Your task to perform on an android device: turn vacation reply on in the gmail app Image 0: 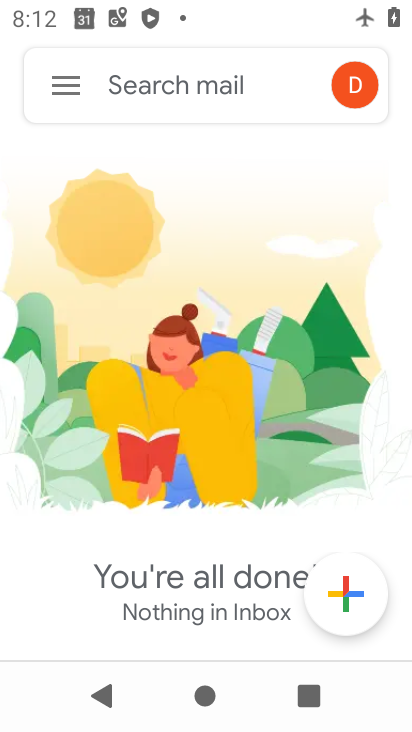
Step 0: click (70, 76)
Your task to perform on an android device: turn vacation reply on in the gmail app Image 1: 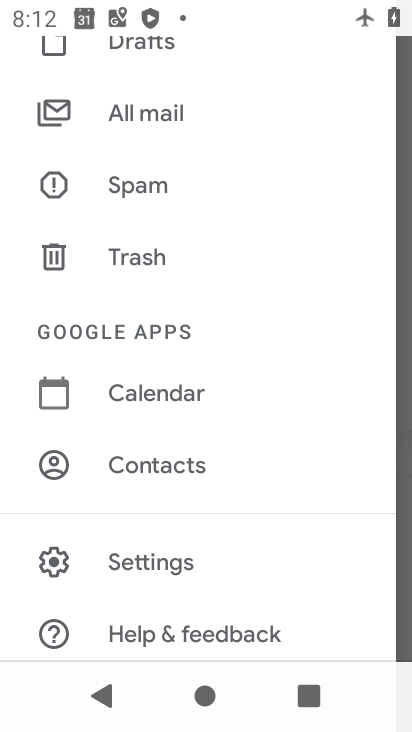
Step 1: click (193, 566)
Your task to perform on an android device: turn vacation reply on in the gmail app Image 2: 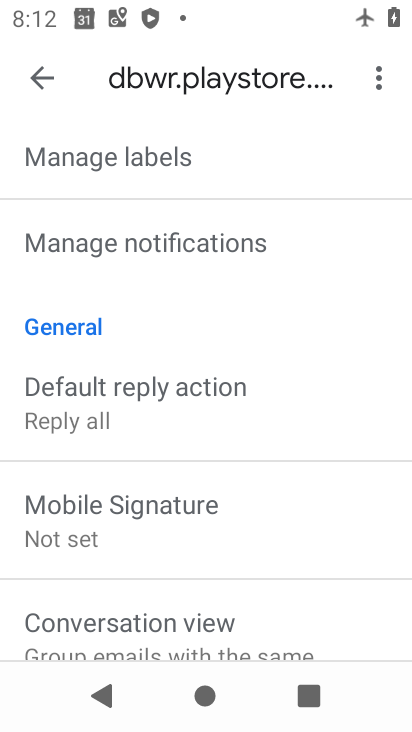
Step 2: drag from (332, 530) to (332, 425)
Your task to perform on an android device: turn vacation reply on in the gmail app Image 3: 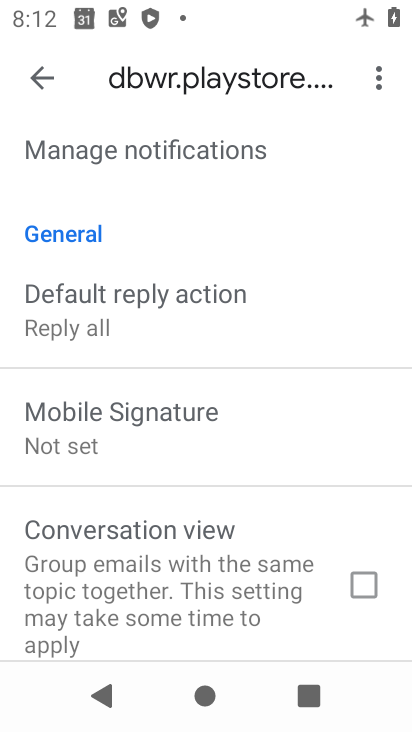
Step 3: drag from (324, 585) to (318, 406)
Your task to perform on an android device: turn vacation reply on in the gmail app Image 4: 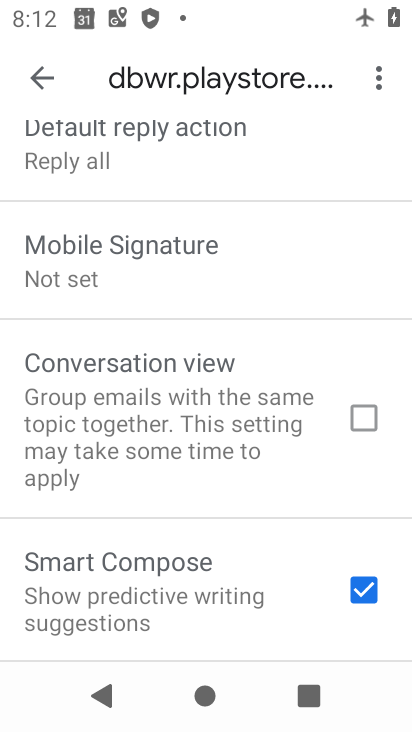
Step 4: drag from (304, 573) to (316, 463)
Your task to perform on an android device: turn vacation reply on in the gmail app Image 5: 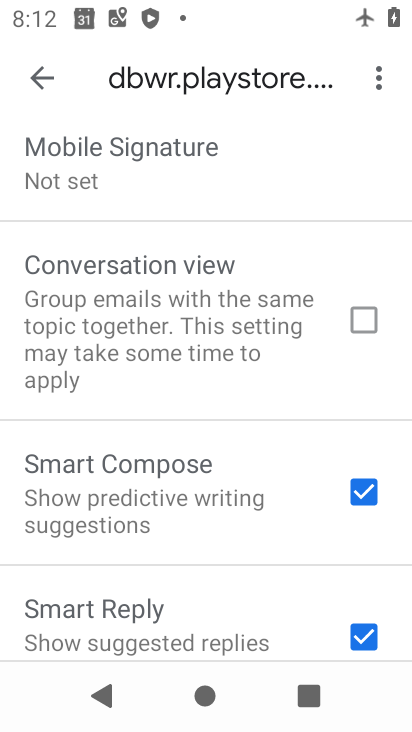
Step 5: drag from (284, 595) to (290, 470)
Your task to perform on an android device: turn vacation reply on in the gmail app Image 6: 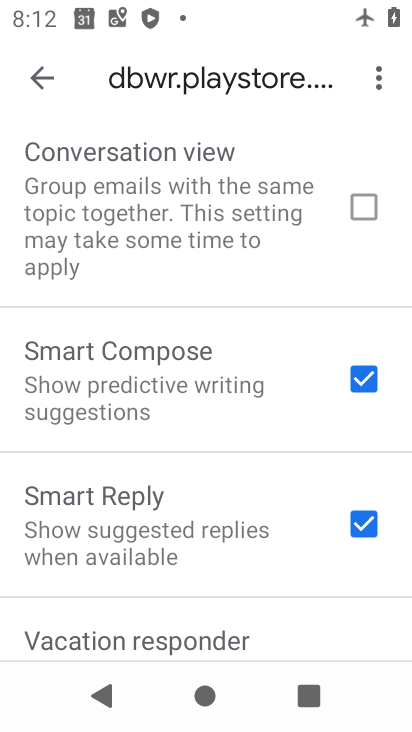
Step 6: drag from (280, 596) to (288, 528)
Your task to perform on an android device: turn vacation reply on in the gmail app Image 7: 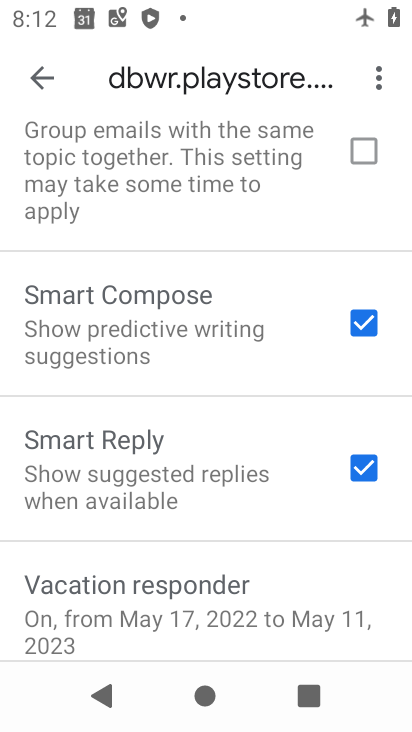
Step 7: drag from (289, 589) to (288, 485)
Your task to perform on an android device: turn vacation reply on in the gmail app Image 8: 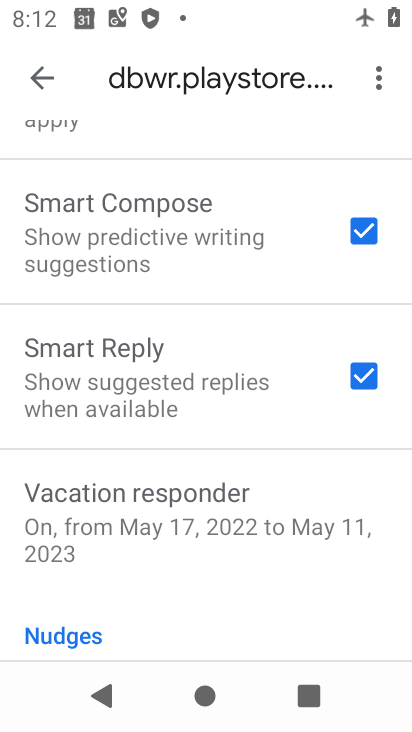
Step 8: click (286, 523)
Your task to perform on an android device: turn vacation reply on in the gmail app Image 9: 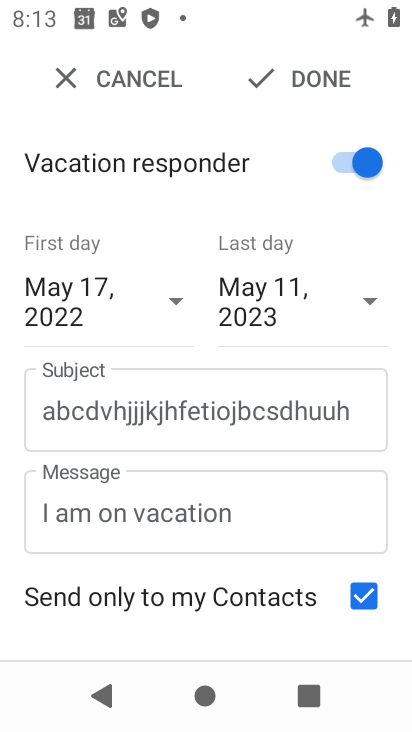
Step 9: task complete